Your task to perform on an android device: Open Maps and search for coffee Image 0: 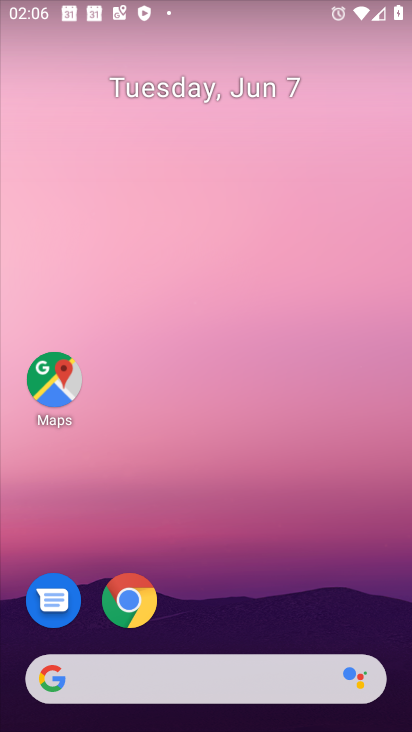
Step 0: drag from (221, 689) to (176, 169)
Your task to perform on an android device: Open Maps and search for coffee Image 1: 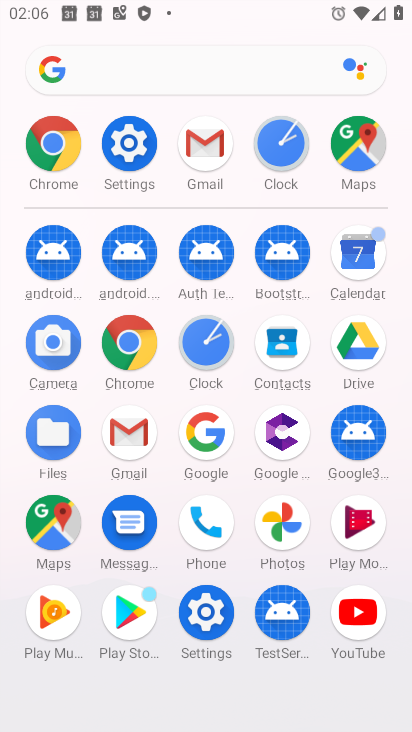
Step 1: click (50, 523)
Your task to perform on an android device: Open Maps and search for coffee Image 2: 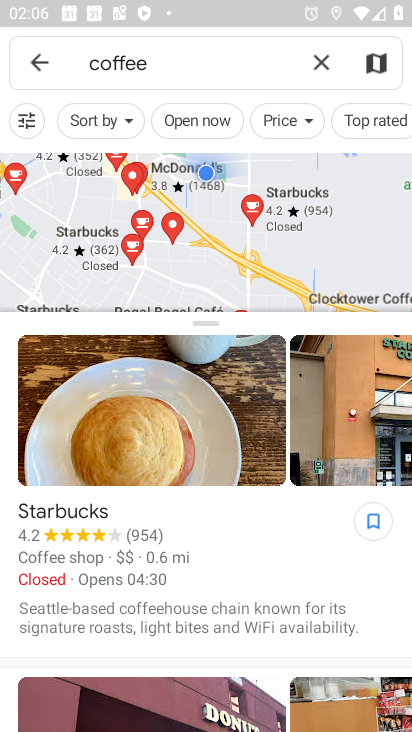
Step 2: task complete